Your task to perform on an android device: Open the stopwatch Image 0: 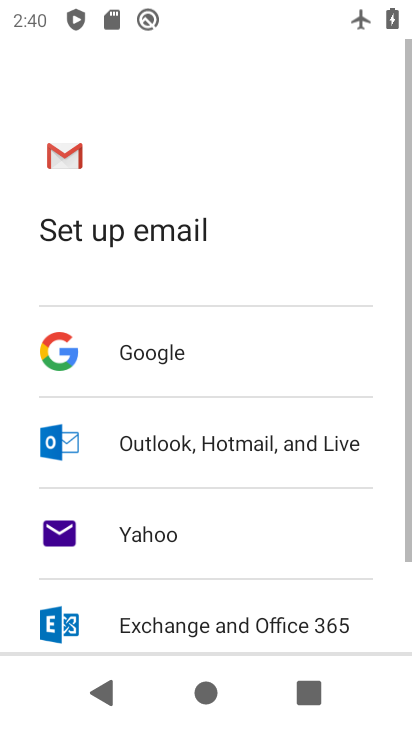
Step 0: drag from (231, 576) to (259, 64)
Your task to perform on an android device: Open the stopwatch Image 1: 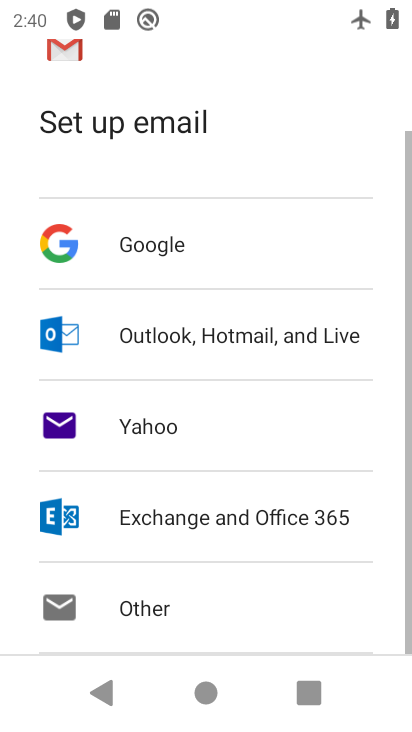
Step 1: press home button
Your task to perform on an android device: Open the stopwatch Image 2: 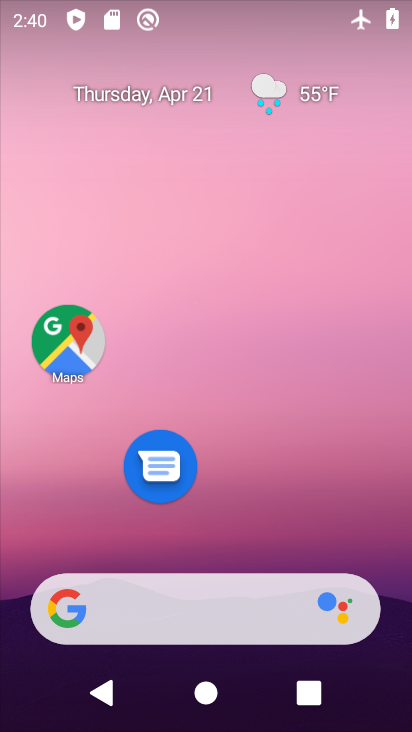
Step 2: drag from (235, 618) to (261, 132)
Your task to perform on an android device: Open the stopwatch Image 3: 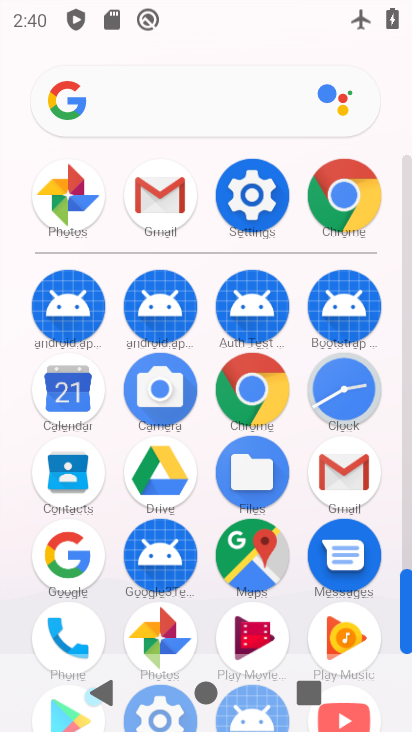
Step 3: click (349, 373)
Your task to perform on an android device: Open the stopwatch Image 4: 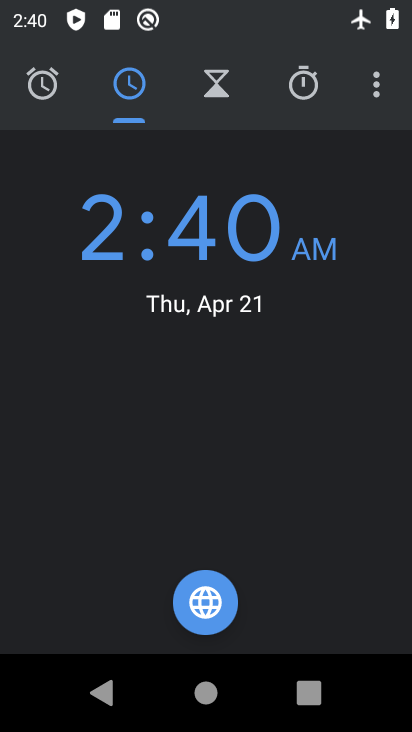
Step 4: click (307, 94)
Your task to perform on an android device: Open the stopwatch Image 5: 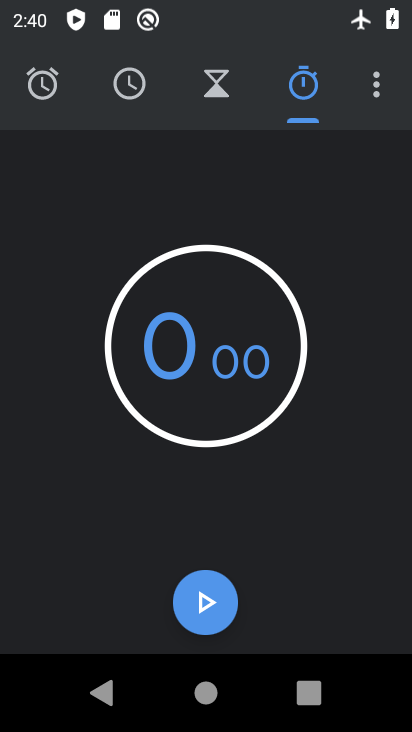
Step 5: click (196, 605)
Your task to perform on an android device: Open the stopwatch Image 6: 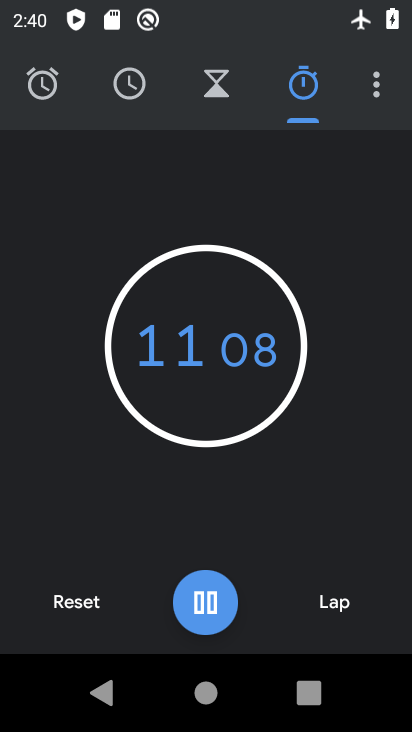
Step 6: task complete